Your task to perform on an android device: Go to Maps Image 0: 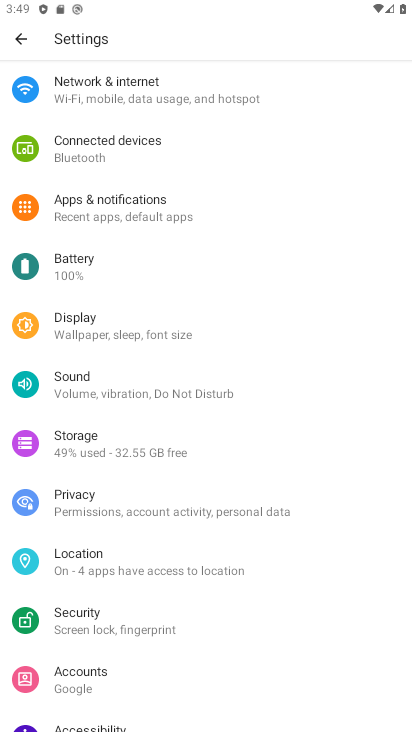
Step 0: press home button
Your task to perform on an android device: Go to Maps Image 1: 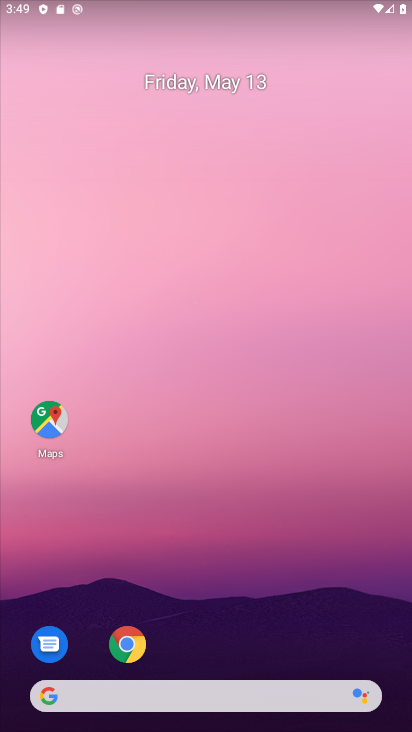
Step 1: click (54, 426)
Your task to perform on an android device: Go to Maps Image 2: 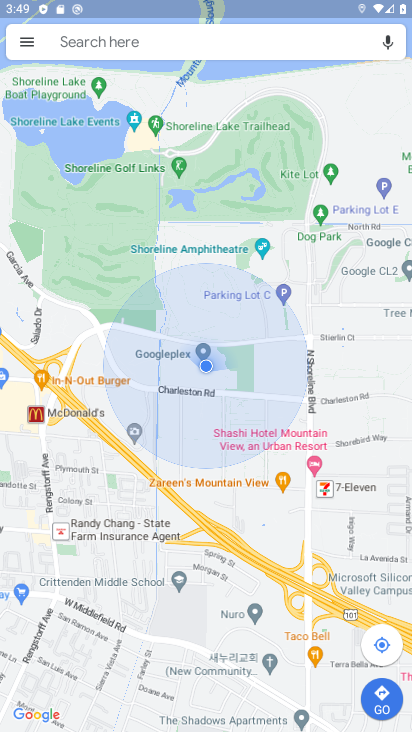
Step 2: task complete